Your task to perform on an android device: open chrome and create a bookmark for the current page Image 0: 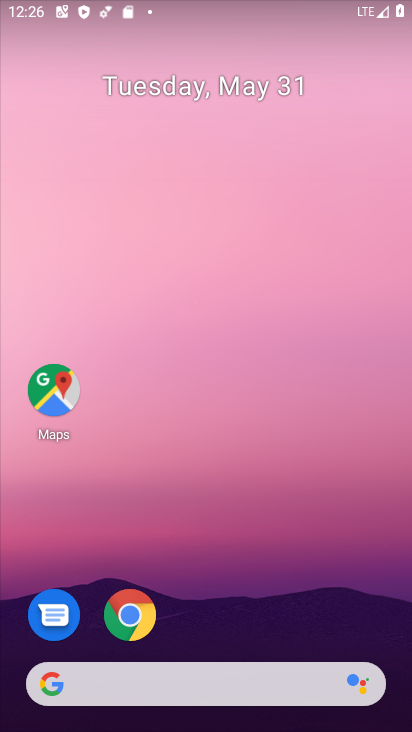
Step 0: click (144, 599)
Your task to perform on an android device: open chrome and create a bookmark for the current page Image 1: 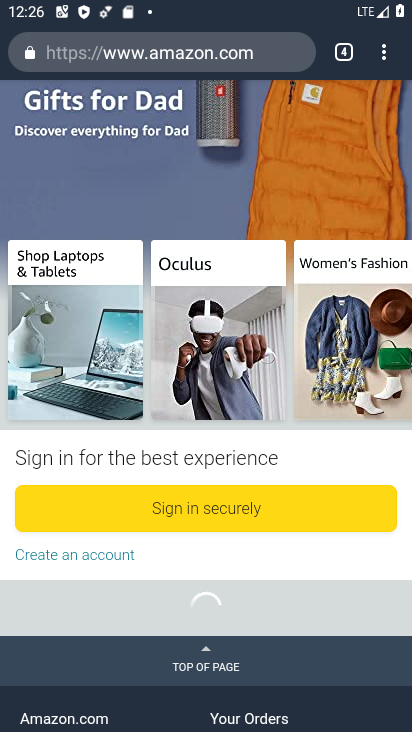
Step 1: click (390, 59)
Your task to perform on an android device: open chrome and create a bookmark for the current page Image 2: 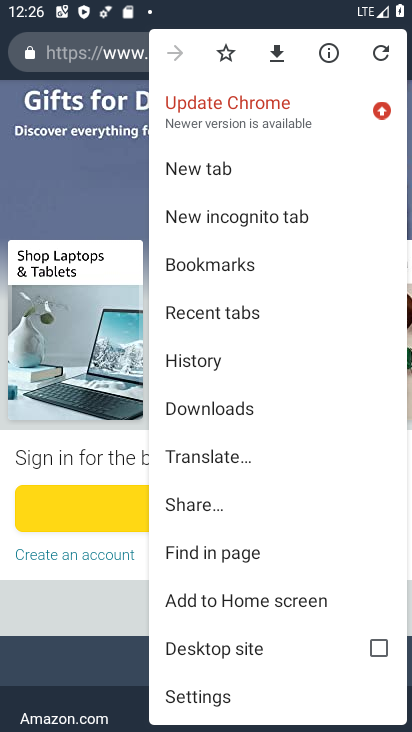
Step 2: click (225, 57)
Your task to perform on an android device: open chrome and create a bookmark for the current page Image 3: 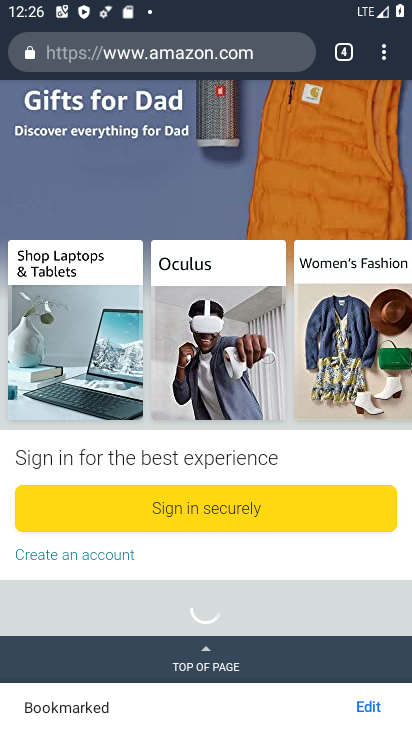
Step 3: task complete